Your task to perform on an android device: visit the assistant section in the google photos Image 0: 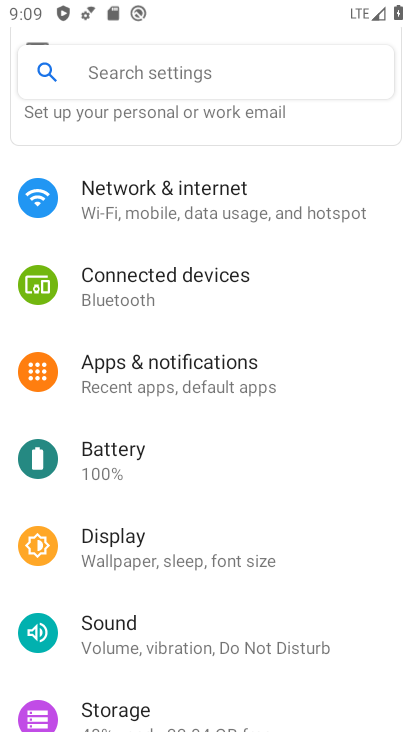
Step 0: press home button
Your task to perform on an android device: visit the assistant section in the google photos Image 1: 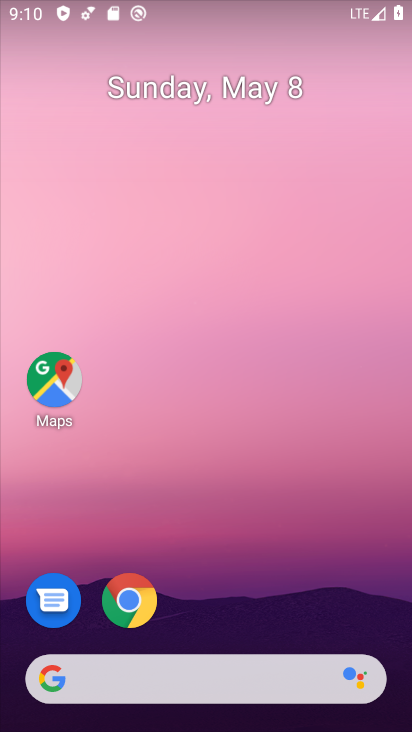
Step 1: drag from (340, 627) to (229, 1)
Your task to perform on an android device: visit the assistant section in the google photos Image 2: 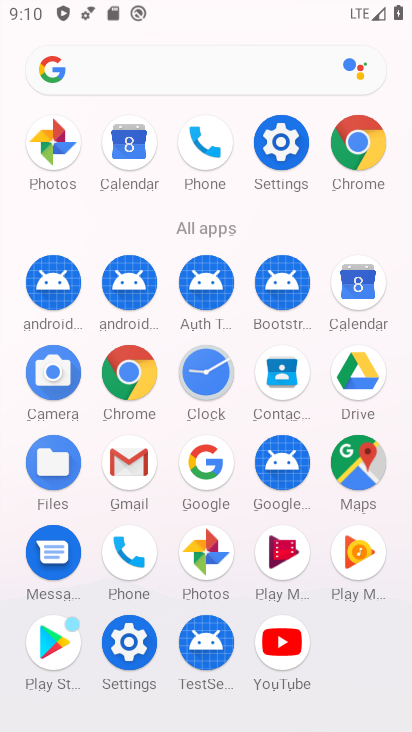
Step 2: click (42, 144)
Your task to perform on an android device: visit the assistant section in the google photos Image 3: 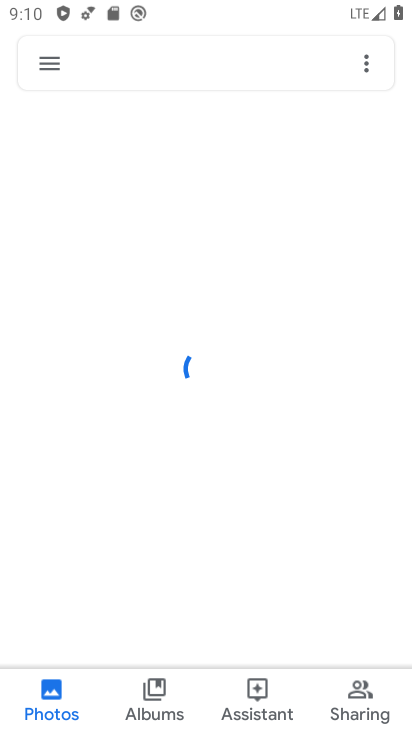
Step 3: click (267, 692)
Your task to perform on an android device: visit the assistant section in the google photos Image 4: 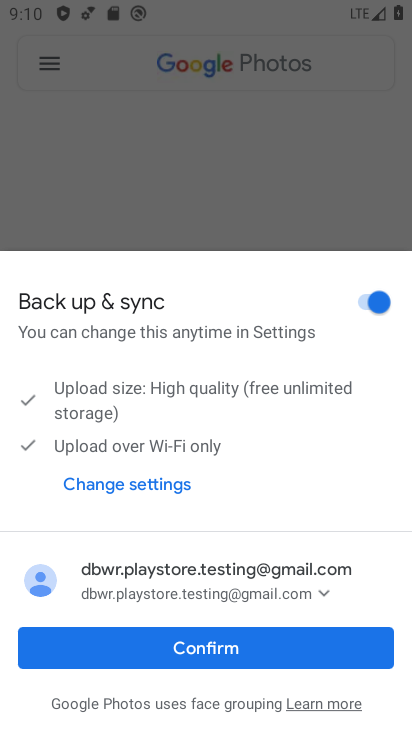
Step 4: click (217, 658)
Your task to perform on an android device: visit the assistant section in the google photos Image 5: 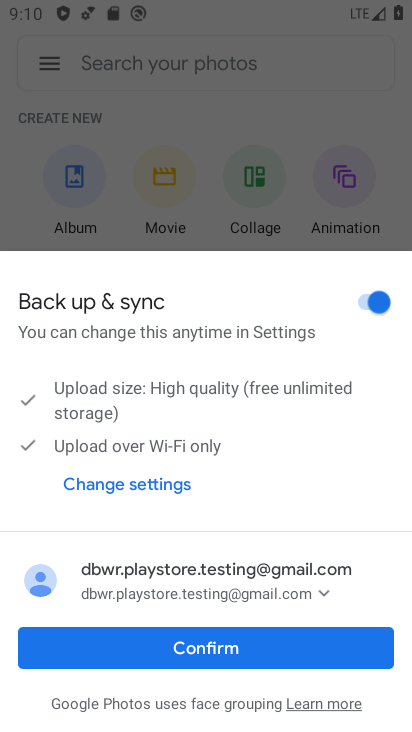
Step 5: click (217, 647)
Your task to perform on an android device: visit the assistant section in the google photos Image 6: 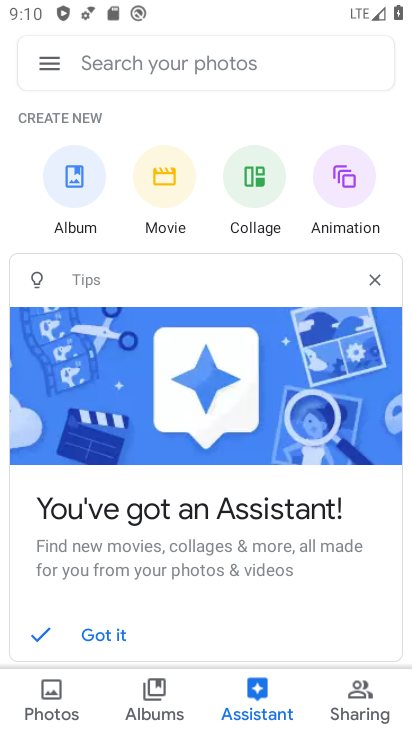
Step 6: task complete